Your task to perform on an android device: change your default location settings in chrome Image 0: 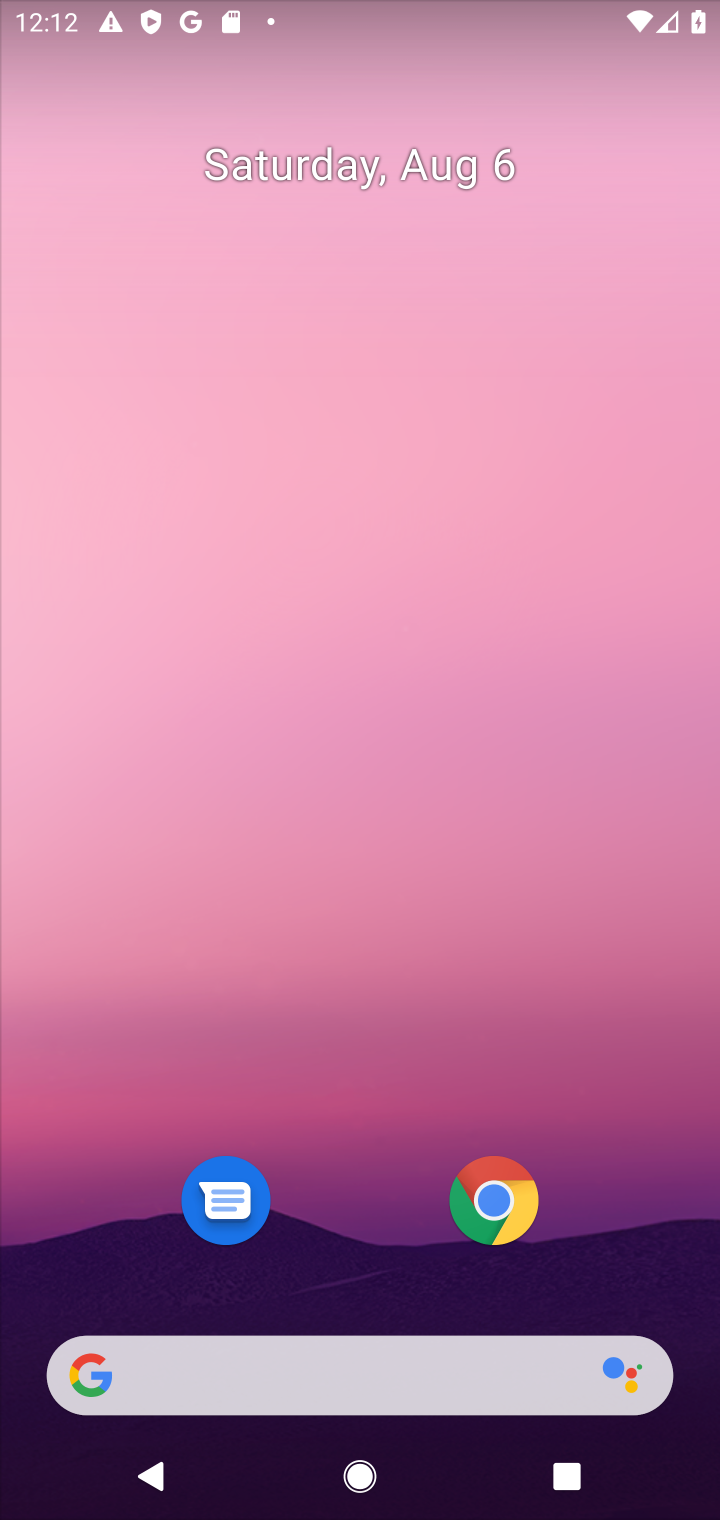
Step 0: drag from (604, 1492) to (433, 674)
Your task to perform on an android device: change your default location settings in chrome Image 1: 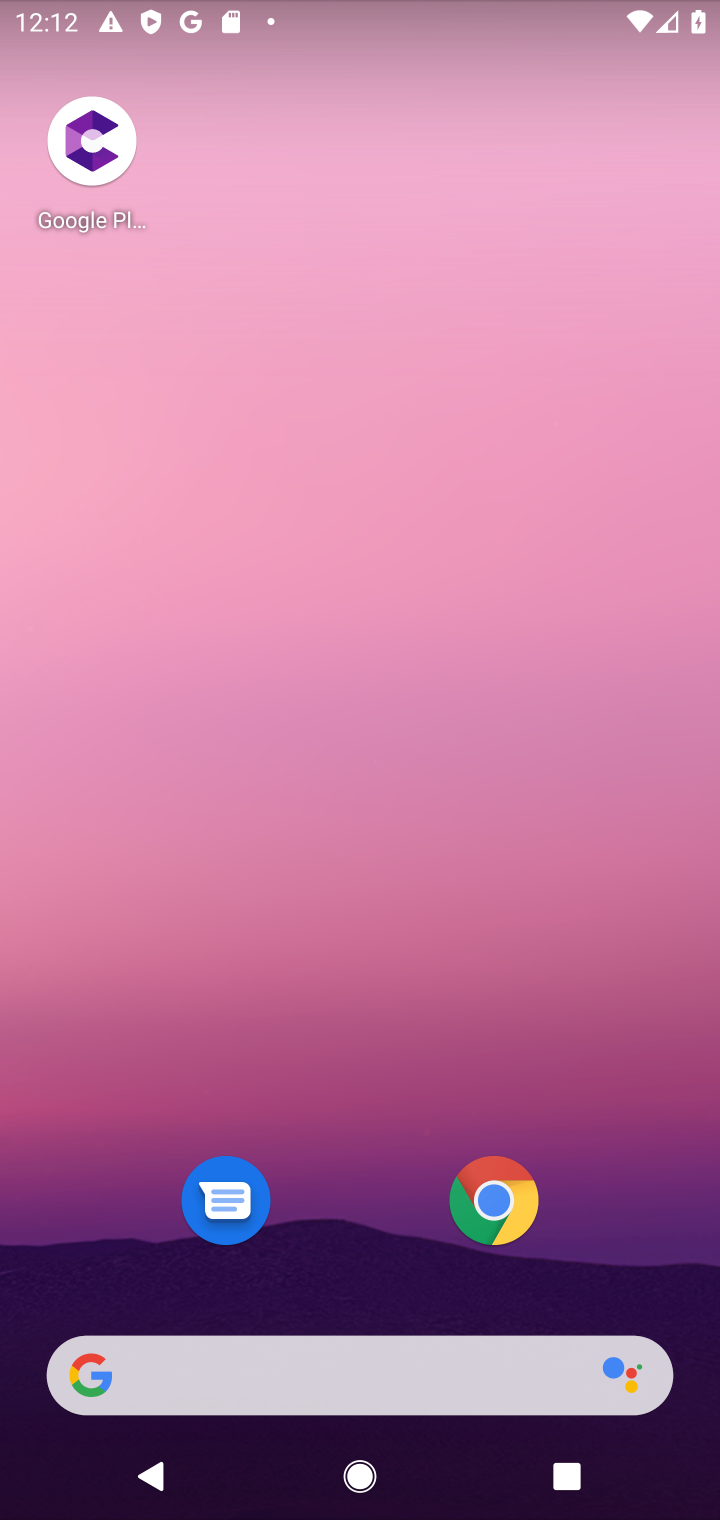
Step 1: drag from (191, 14) to (31, 70)
Your task to perform on an android device: change your default location settings in chrome Image 2: 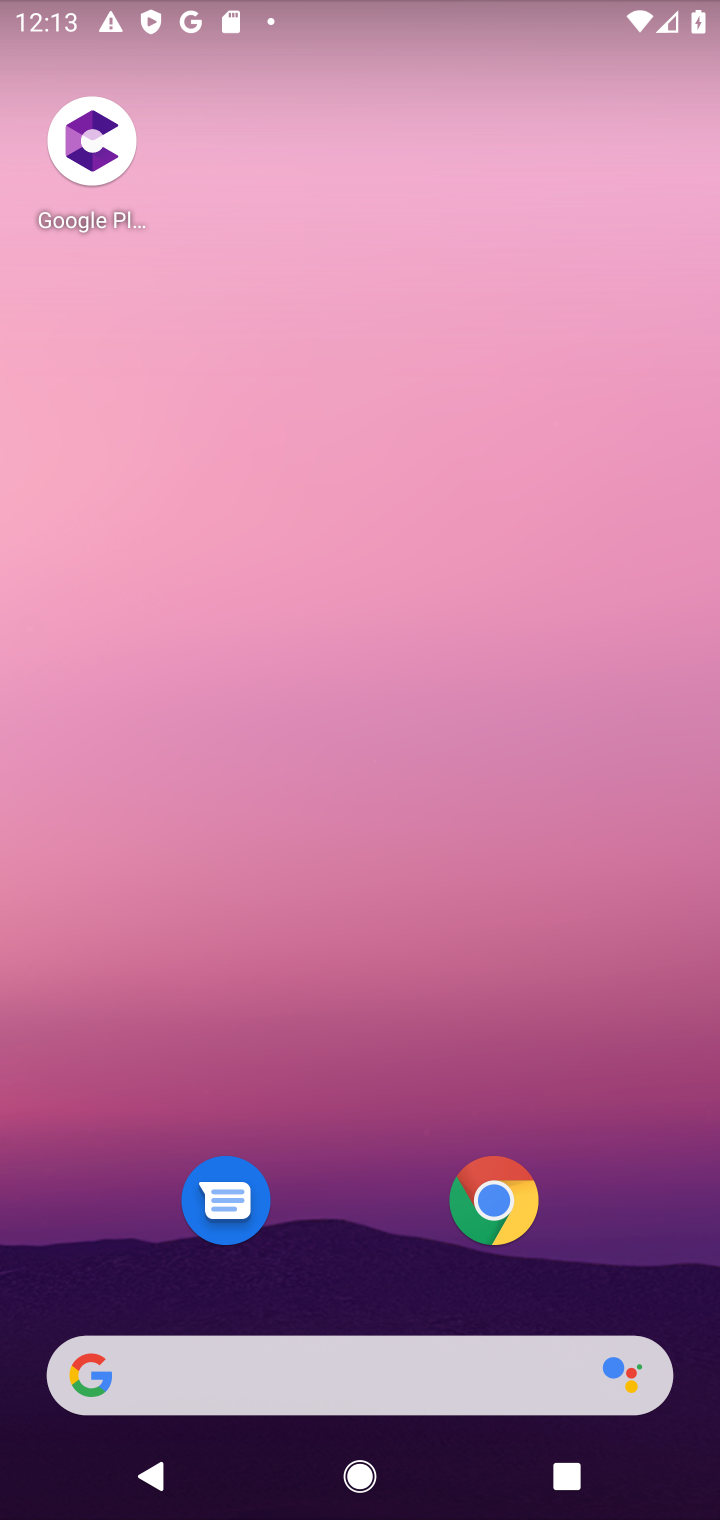
Step 2: drag from (381, 976) to (378, 201)
Your task to perform on an android device: change your default location settings in chrome Image 3: 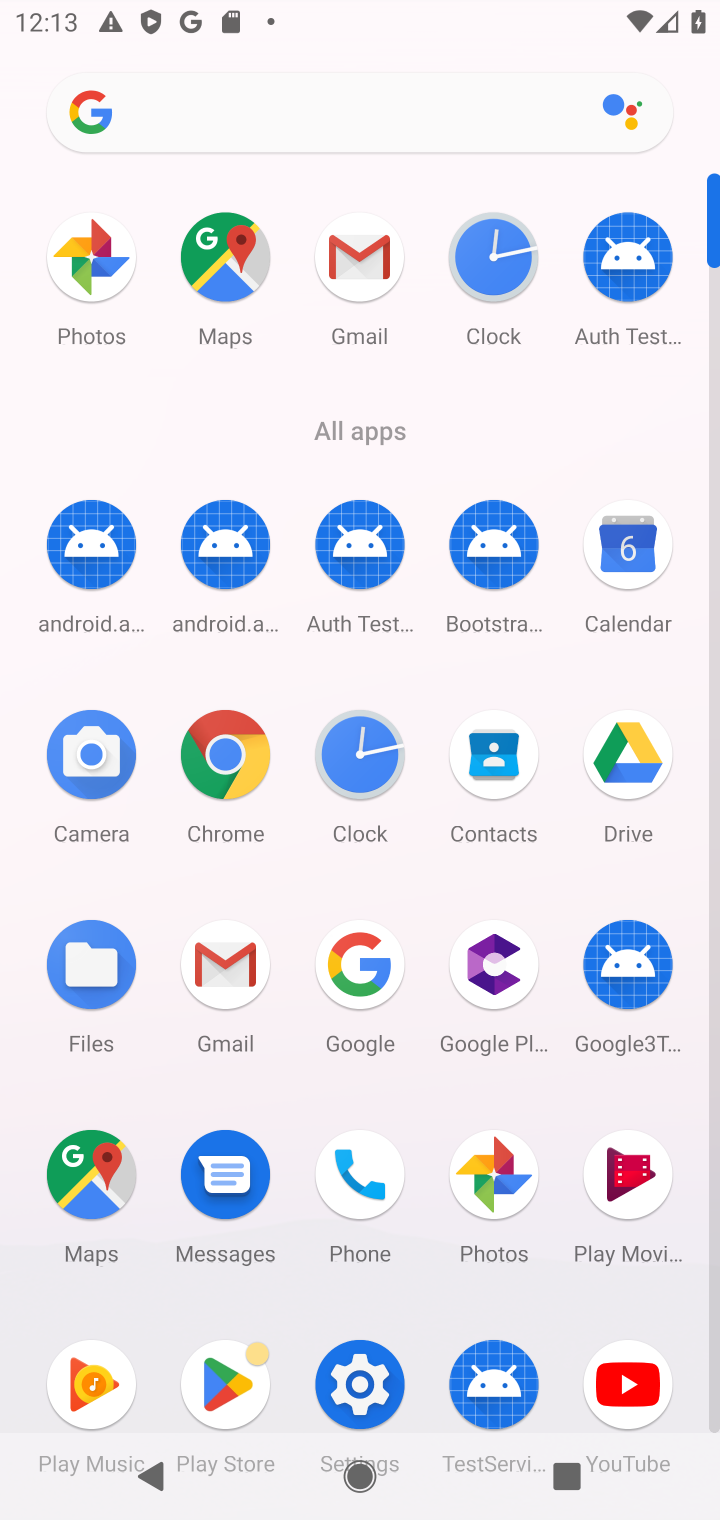
Step 3: click (217, 749)
Your task to perform on an android device: change your default location settings in chrome Image 4: 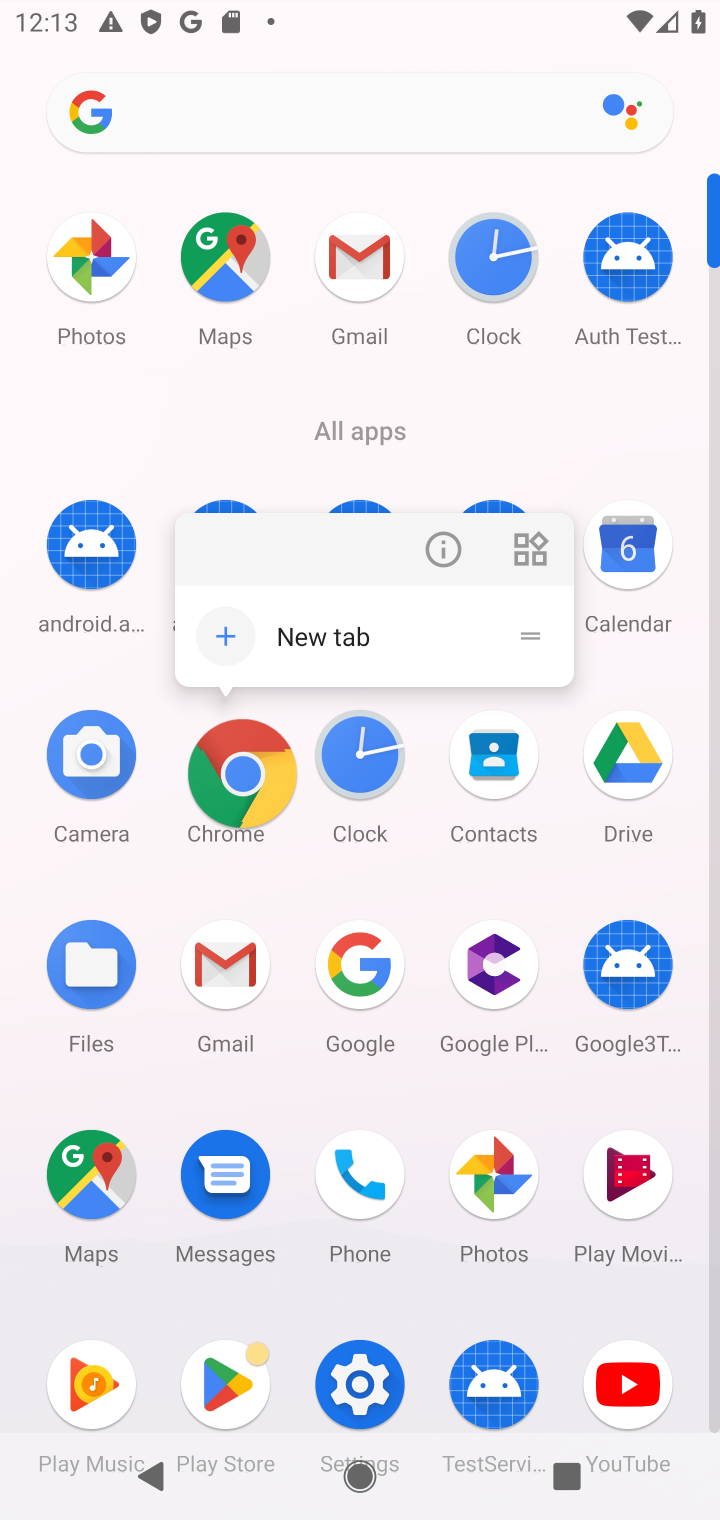
Step 4: click (232, 766)
Your task to perform on an android device: change your default location settings in chrome Image 5: 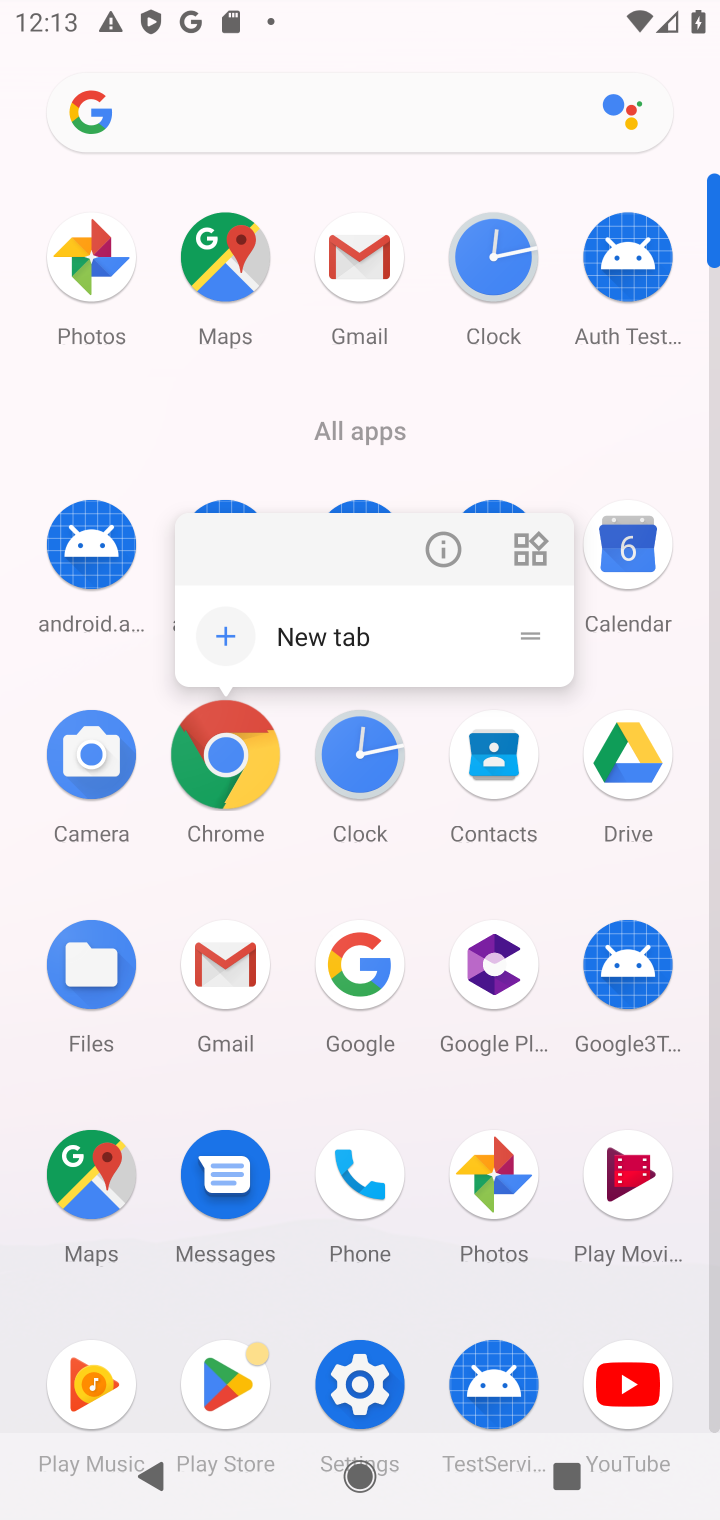
Step 5: click (227, 766)
Your task to perform on an android device: change your default location settings in chrome Image 6: 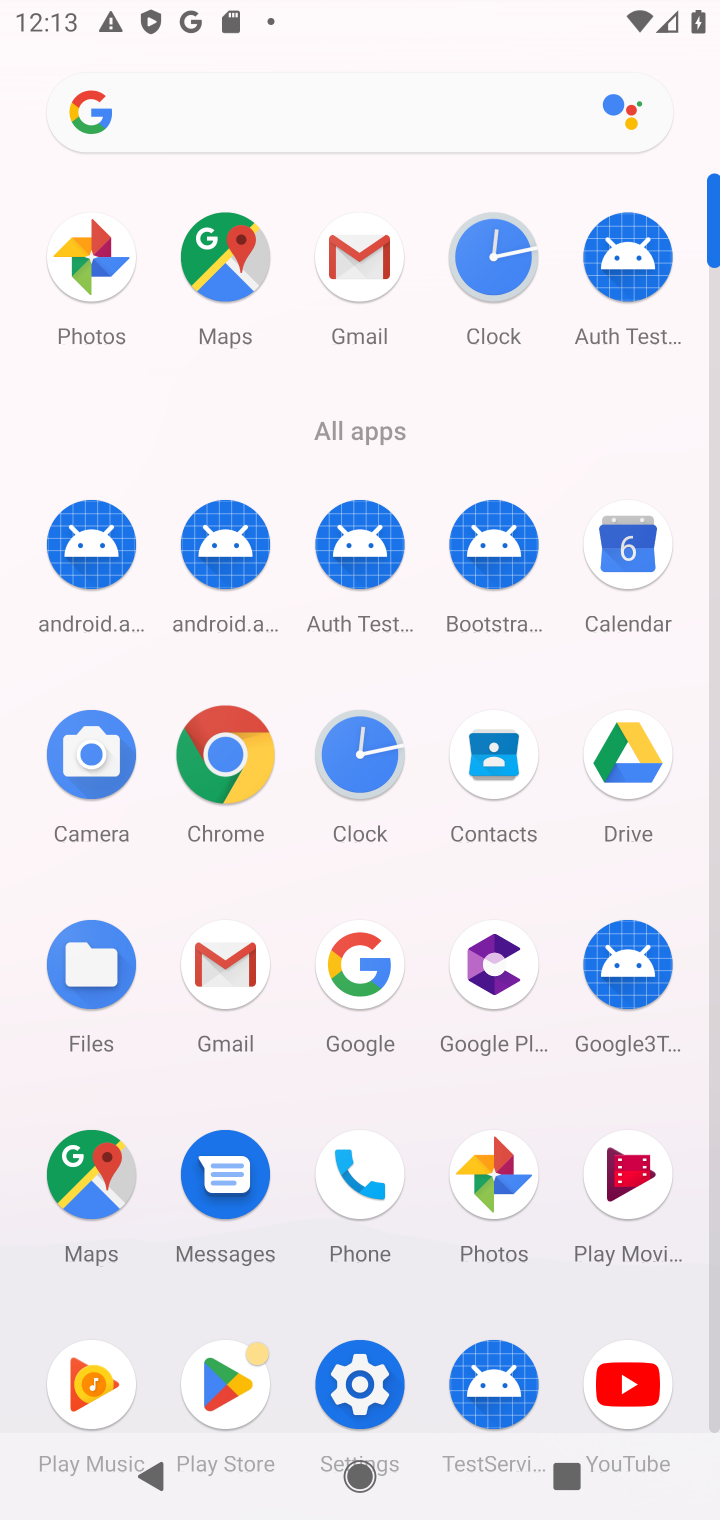
Step 6: click (227, 766)
Your task to perform on an android device: change your default location settings in chrome Image 7: 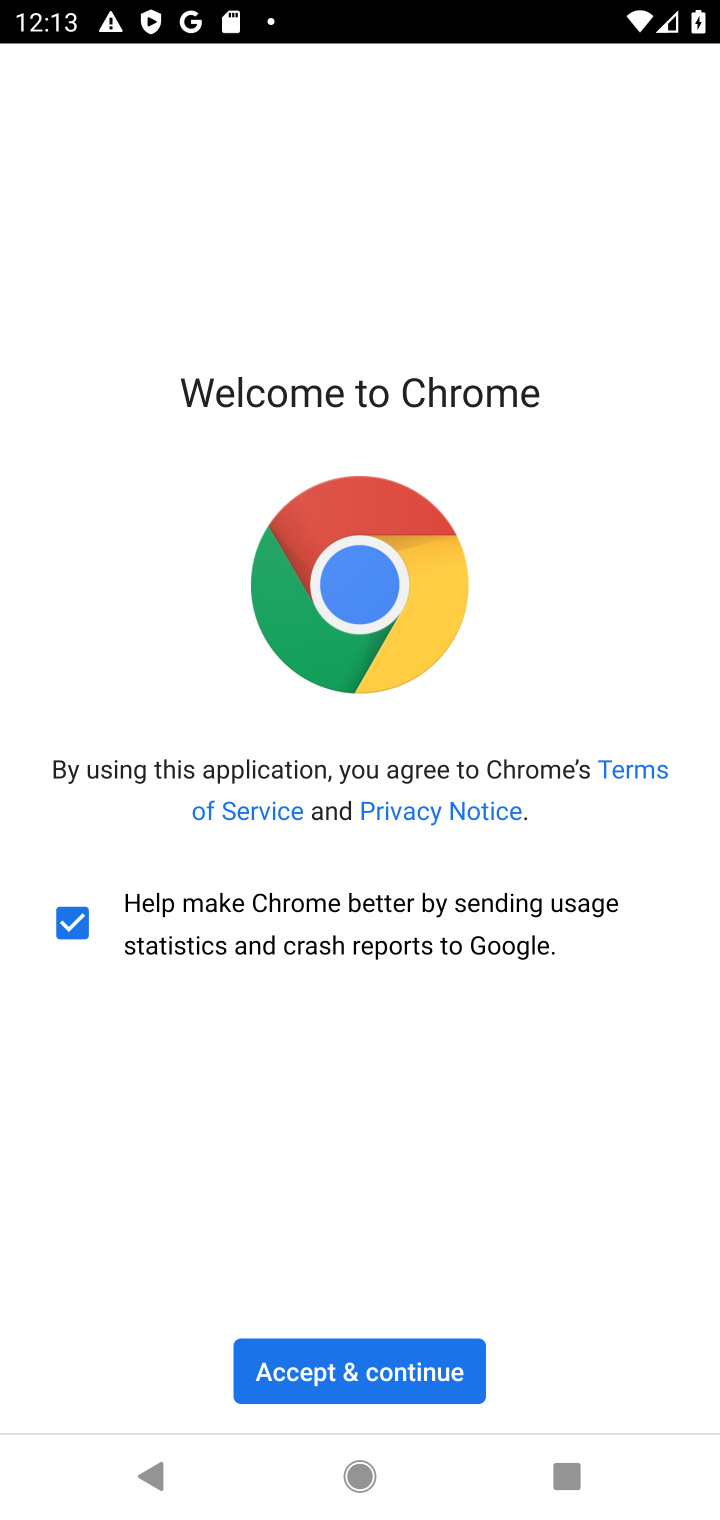
Step 7: press back button
Your task to perform on an android device: change your default location settings in chrome Image 8: 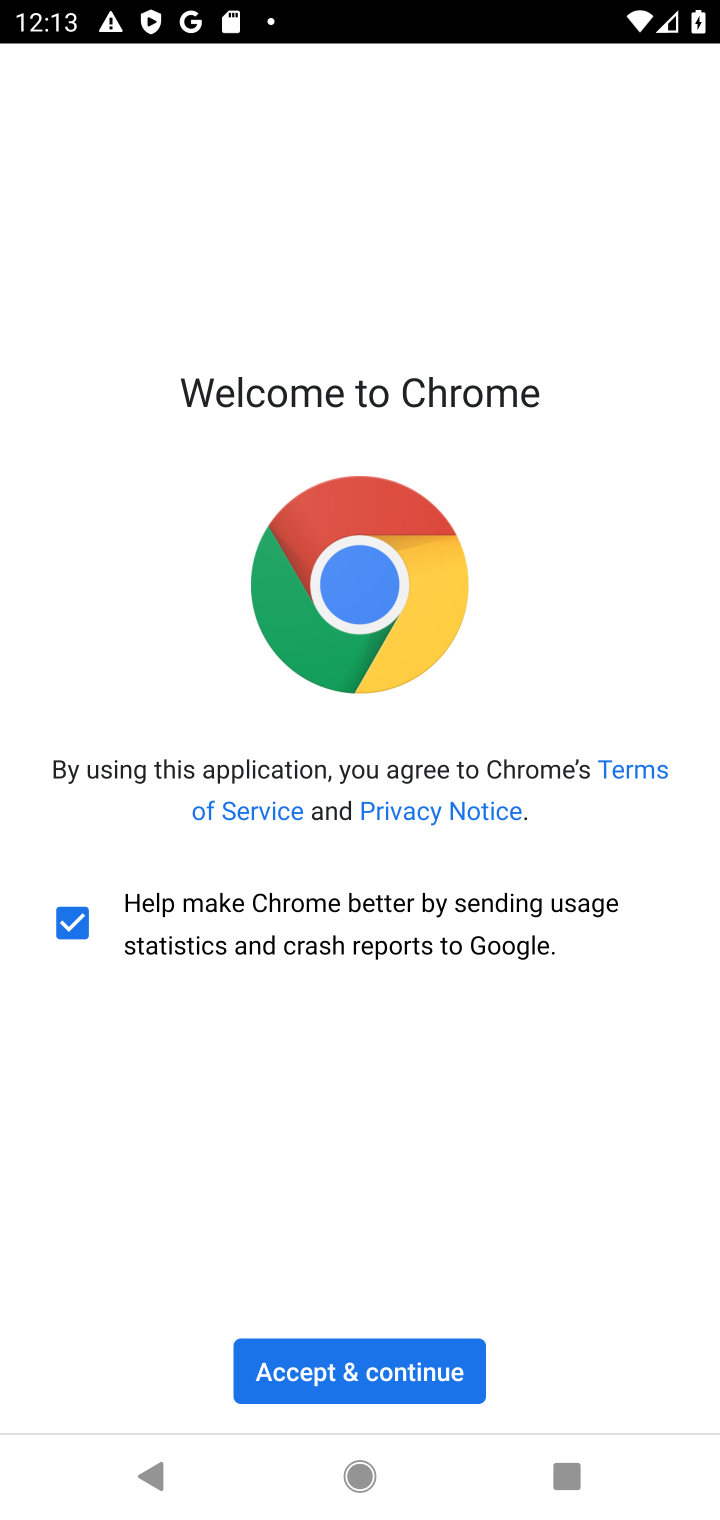
Step 8: press back button
Your task to perform on an android device: change your default location settings in chrome Image 9: 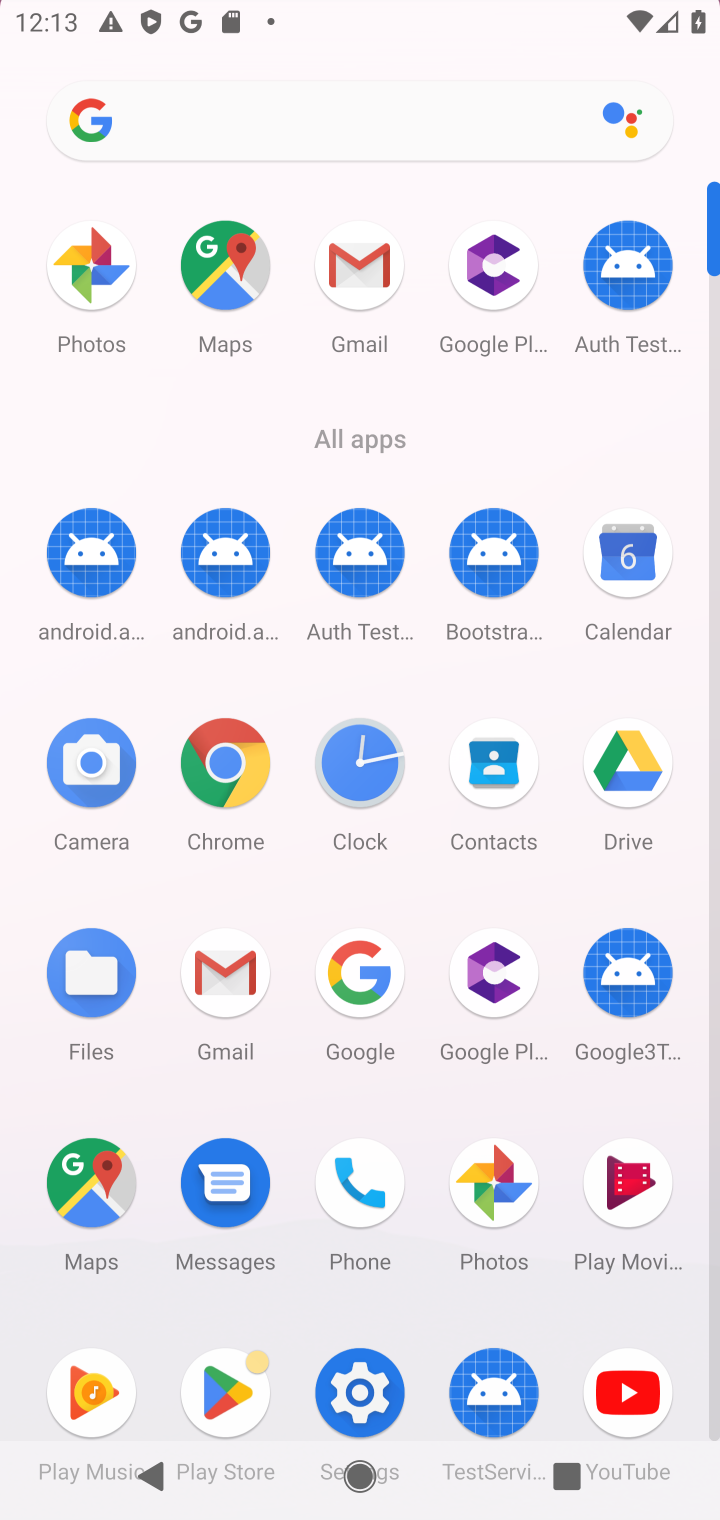
Step 9: press back button
Your task to perform on an android device: change your default location settings in chrome Image 10: 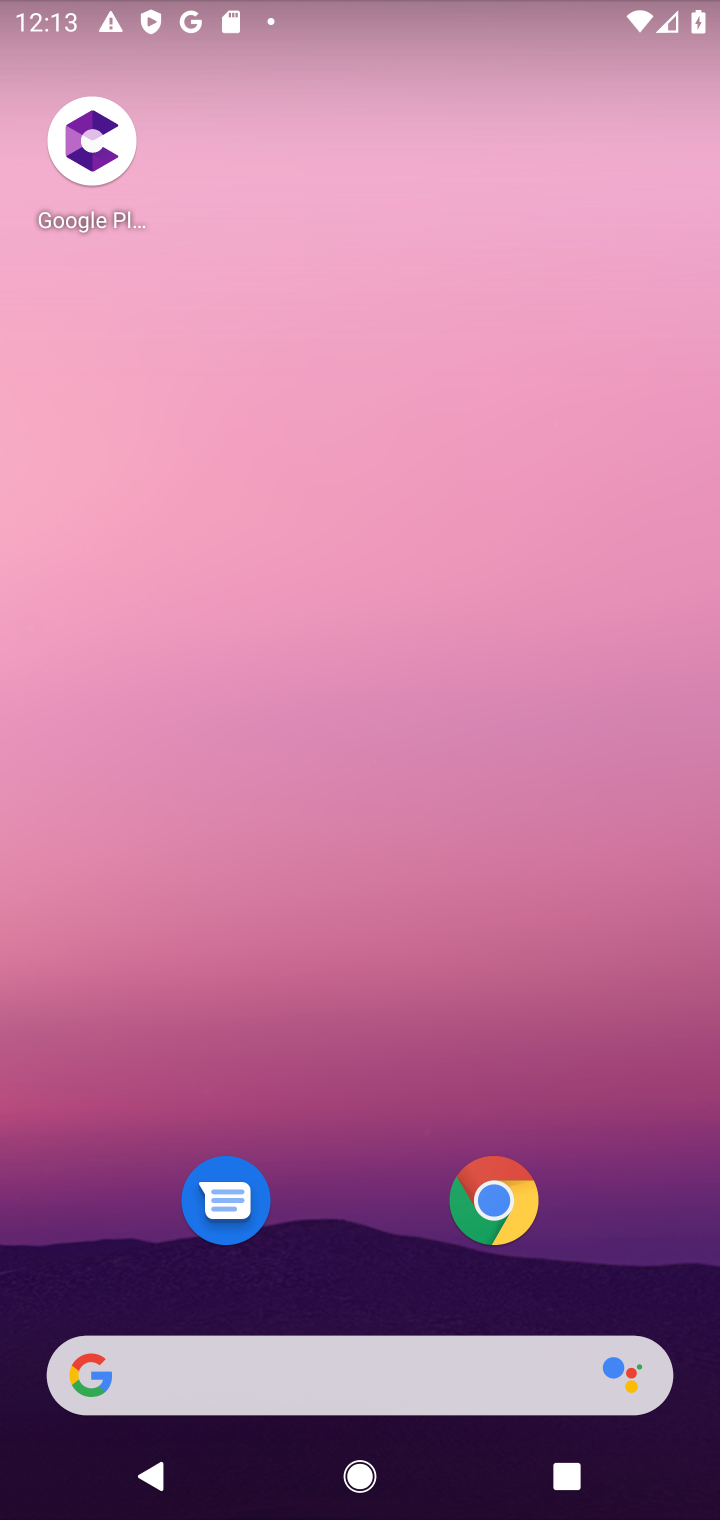
Step 10: click (169, 187)
Your task to perform on an android device: change your default location settings in chrome Image 11: 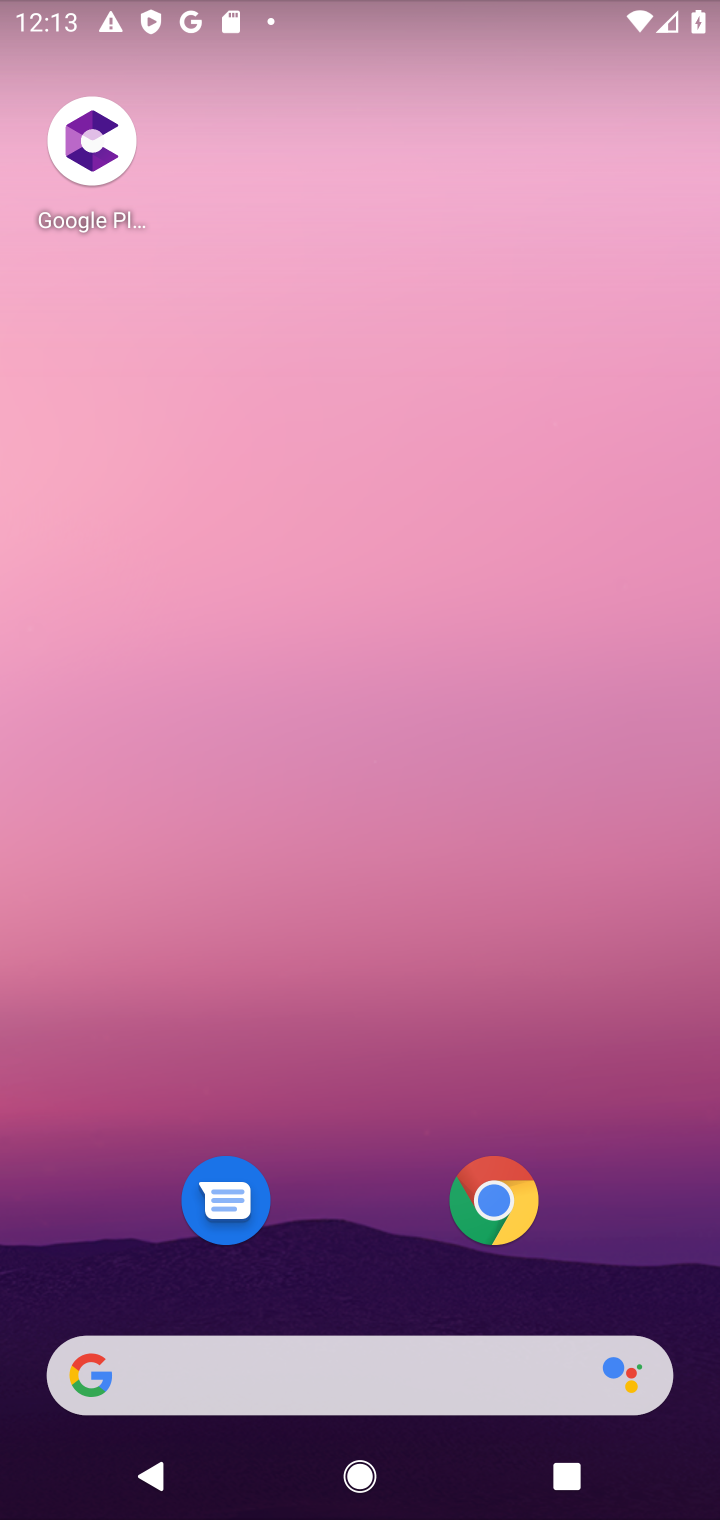
Step 11: drag from (168, 212) to (177, 33)
Your task to perform on an android device: change your default location settings in chrome Image 12: 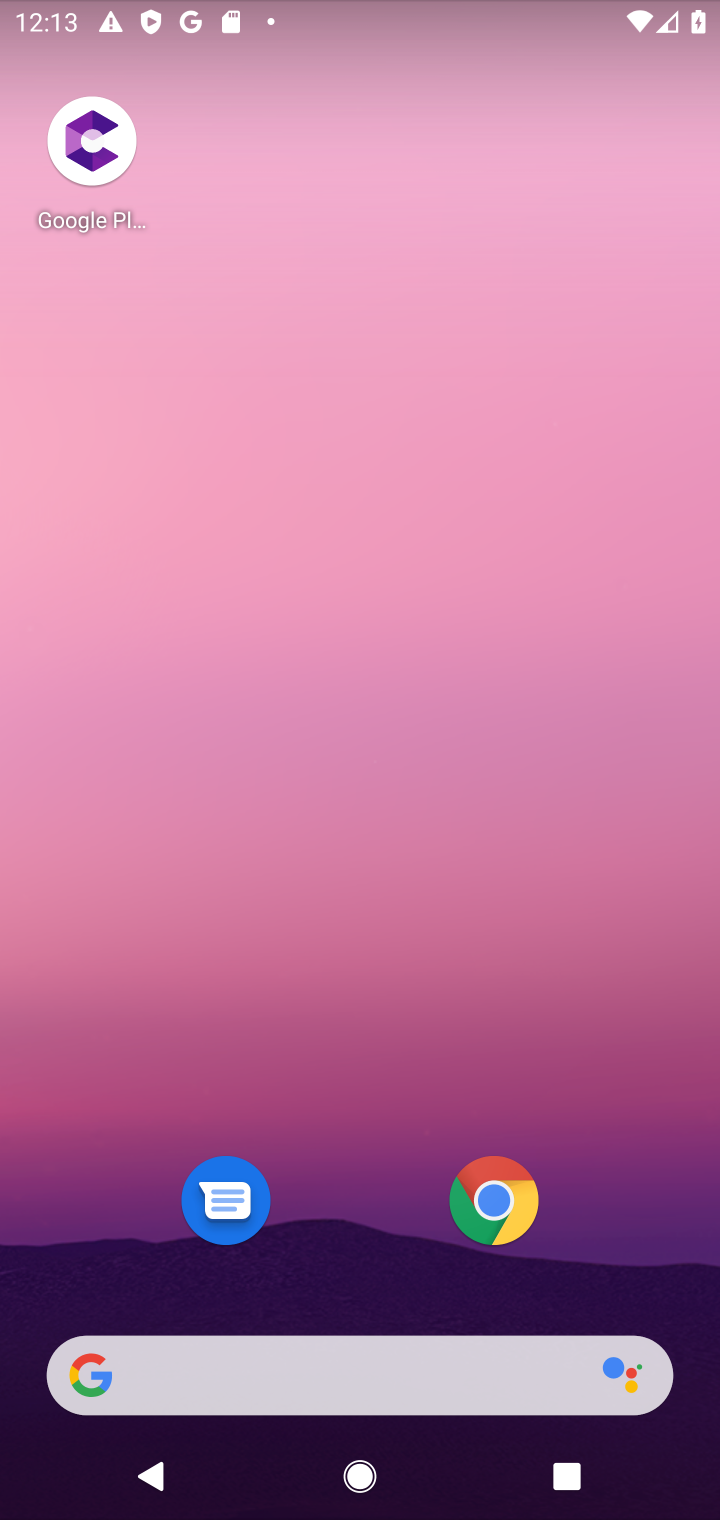
Step 12: drag from (228, 98) to (348, 55)
Your task to perform on an android device: change your default location settings in chrome Image 13: 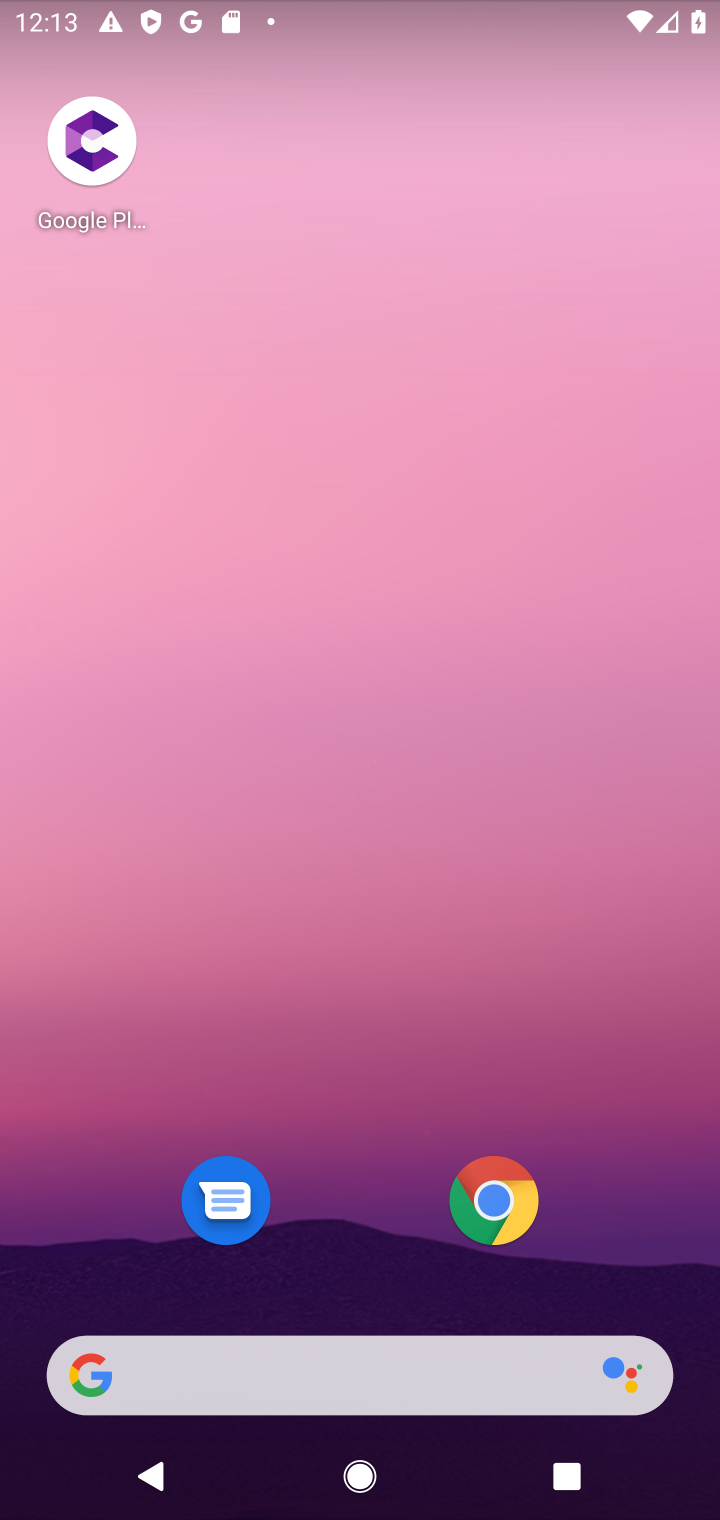
Step 13: drag from (451, 1307) to (532, 581)
Your task to perform on an android device: change your default location settings in chrome Image 14: 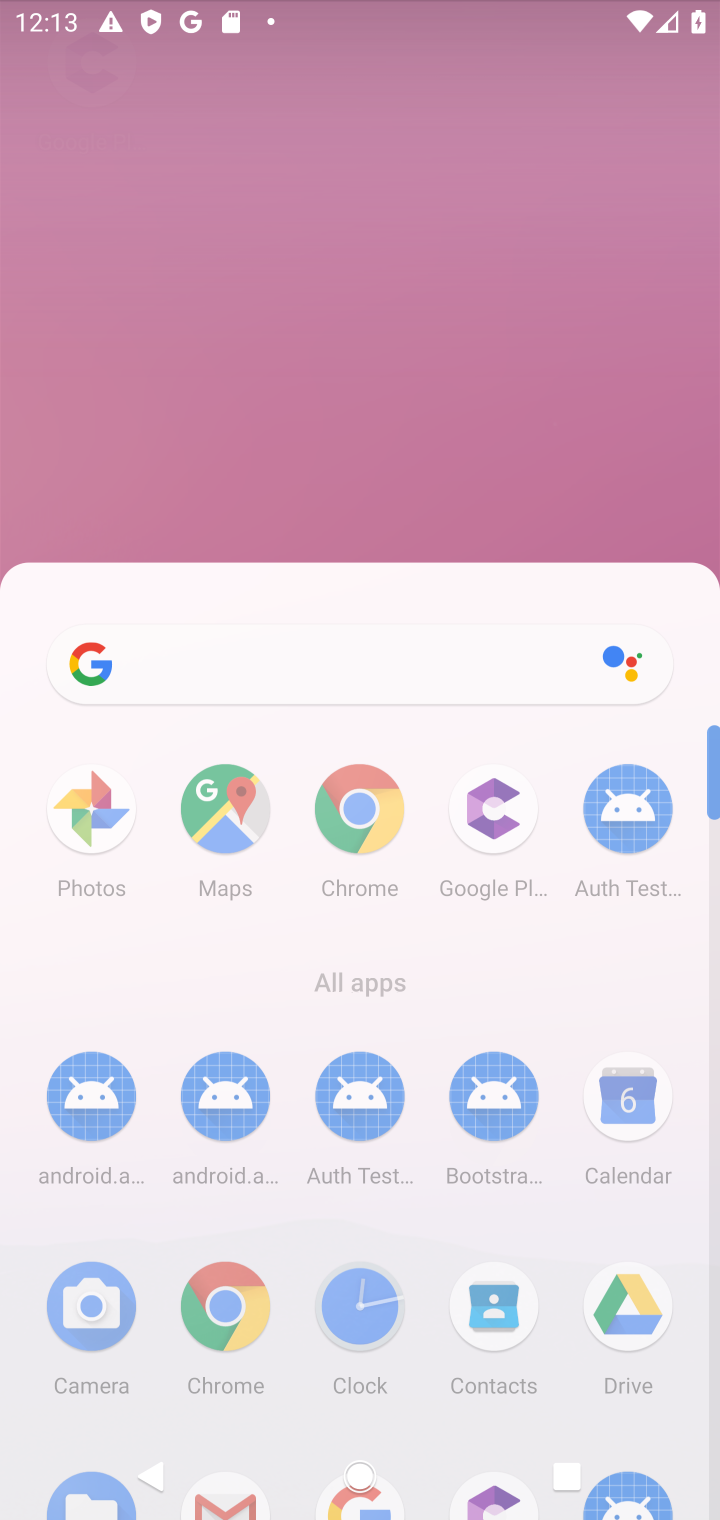
Step 14: drag from (536, 1242) to (447, 572)
Your task to perform on an android device: change your default location settings in chrome Image 15: 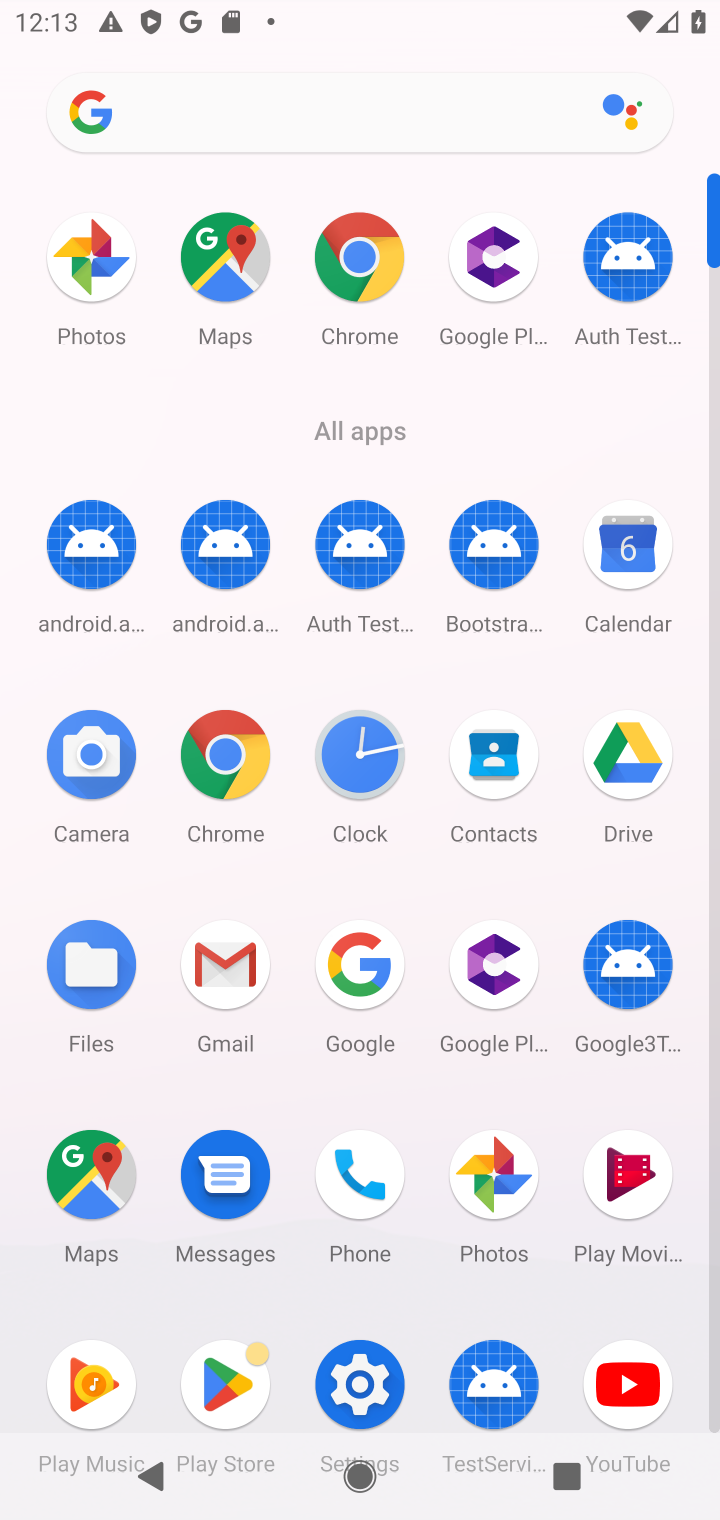
Step 15: click (234, 761)
Your task to perform on an android device: change your default location settings in chrome Image 16: 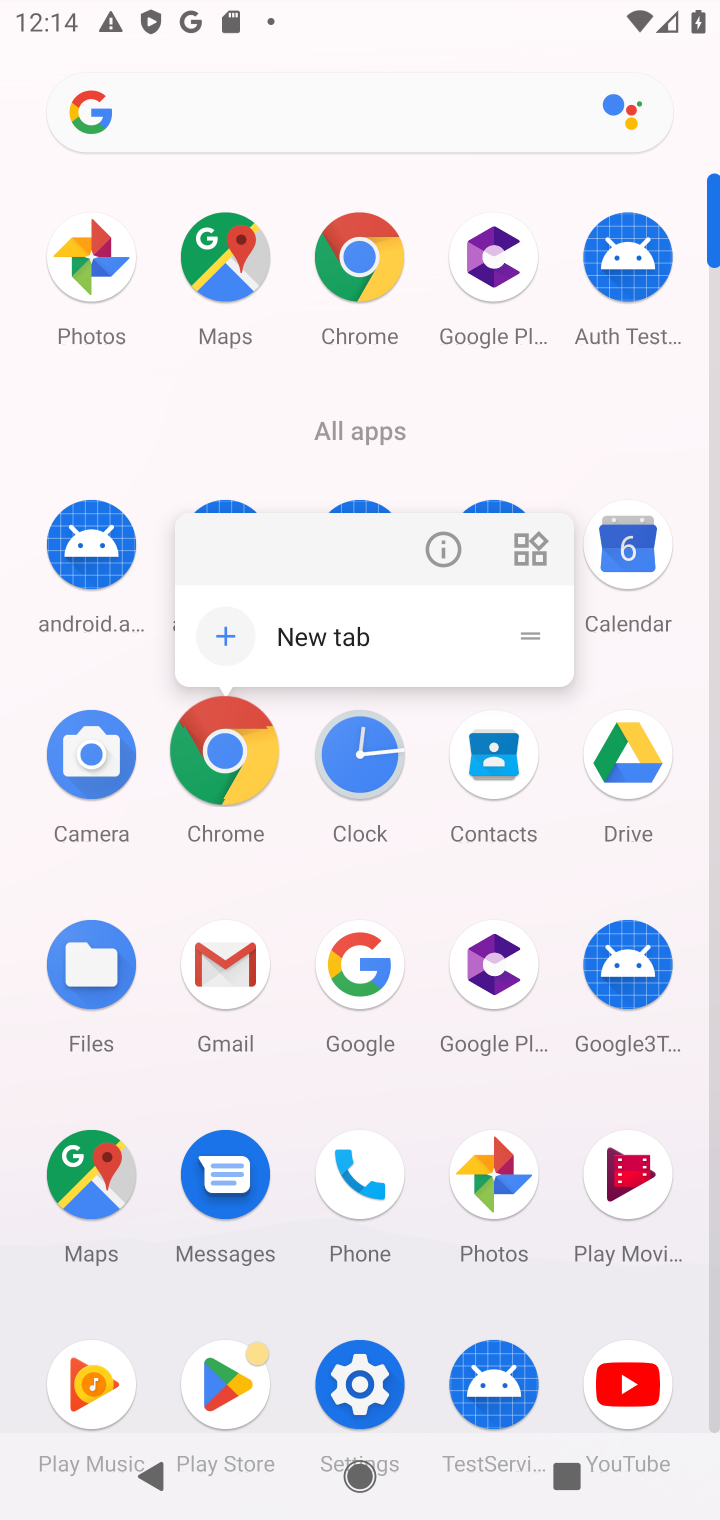
Step 16: click (241, 759)
Your task to perform on an android device: change your default location settings in chrome Image 17: 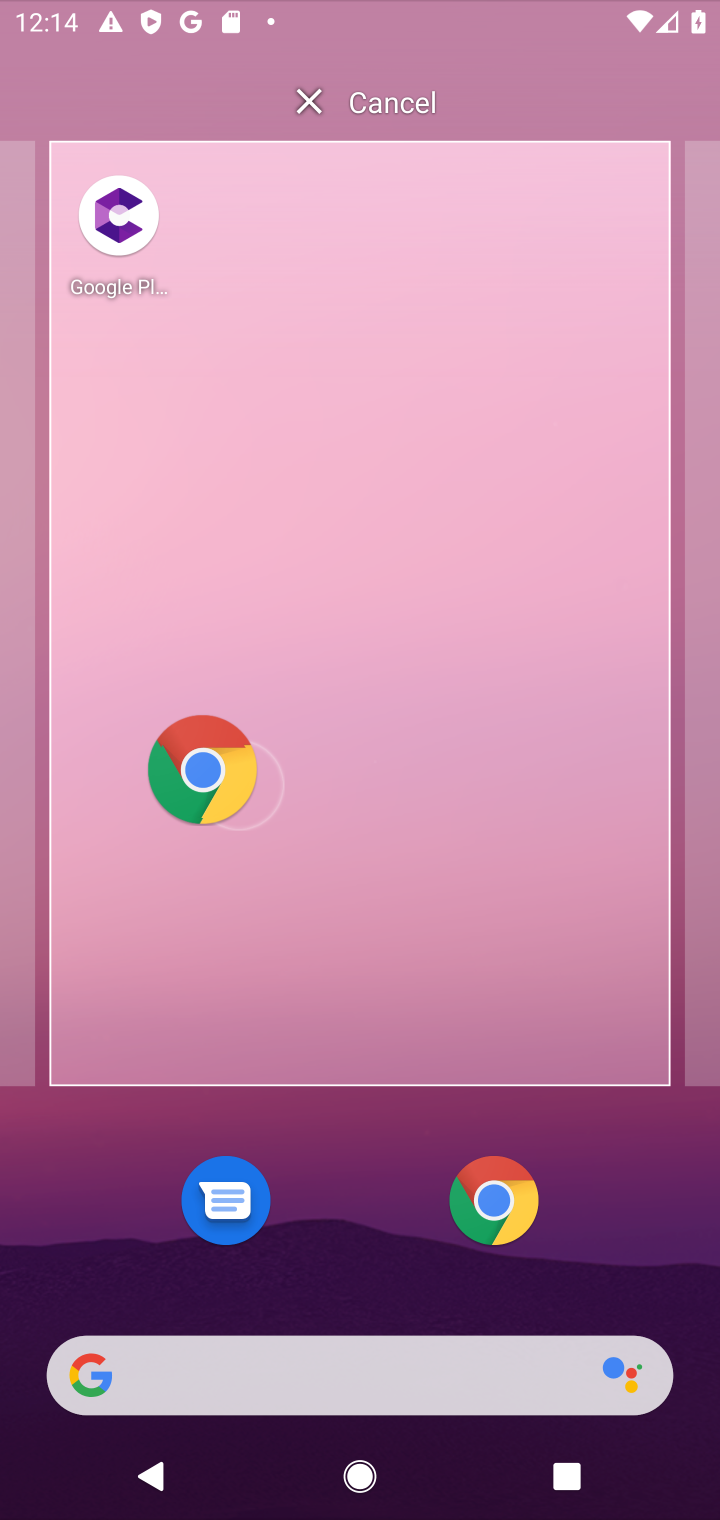
Step 17: click (218, 774)
Your task to perform on an android device: change your default location settings in chrome Image 18: 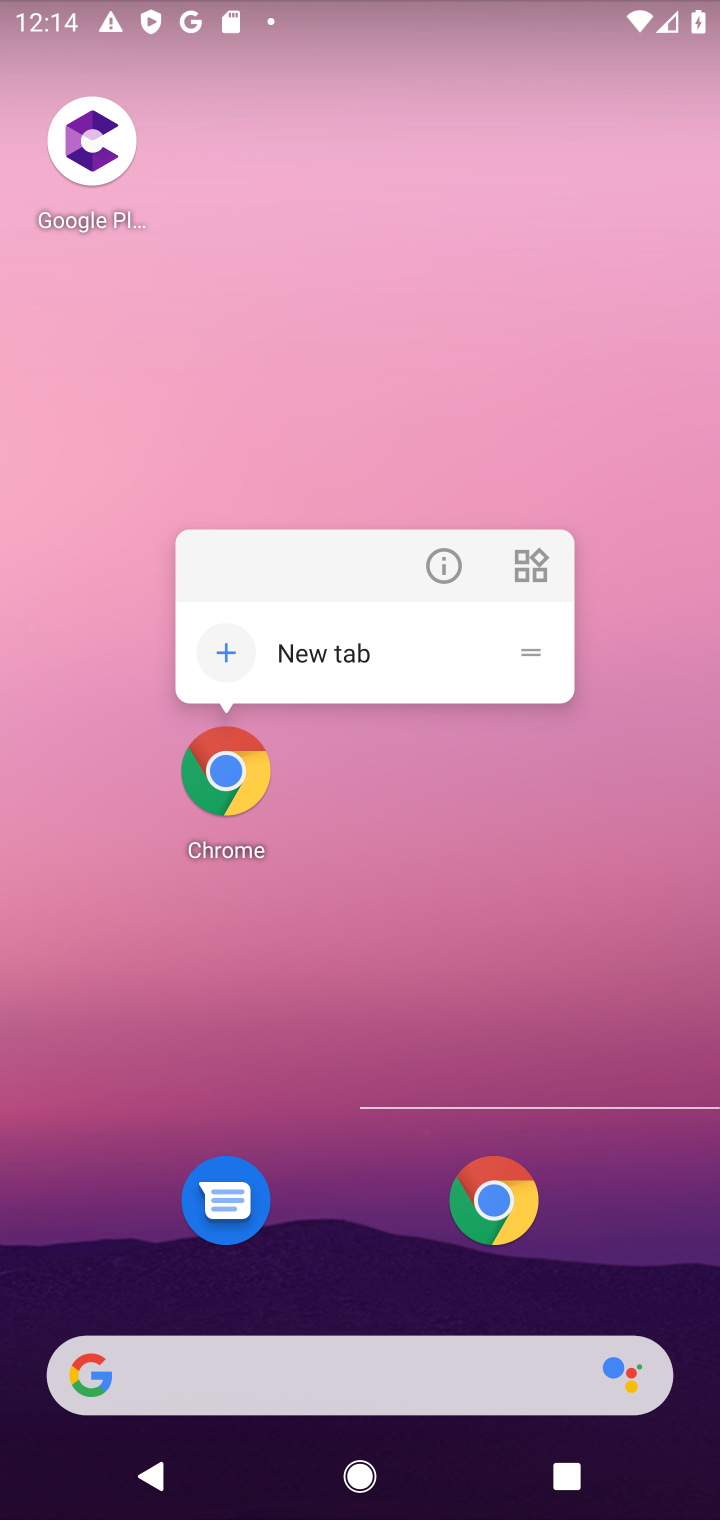
Step 18: click (218, 774)
Your task to perform on an android device: change your default location settings in chrome Image 19: 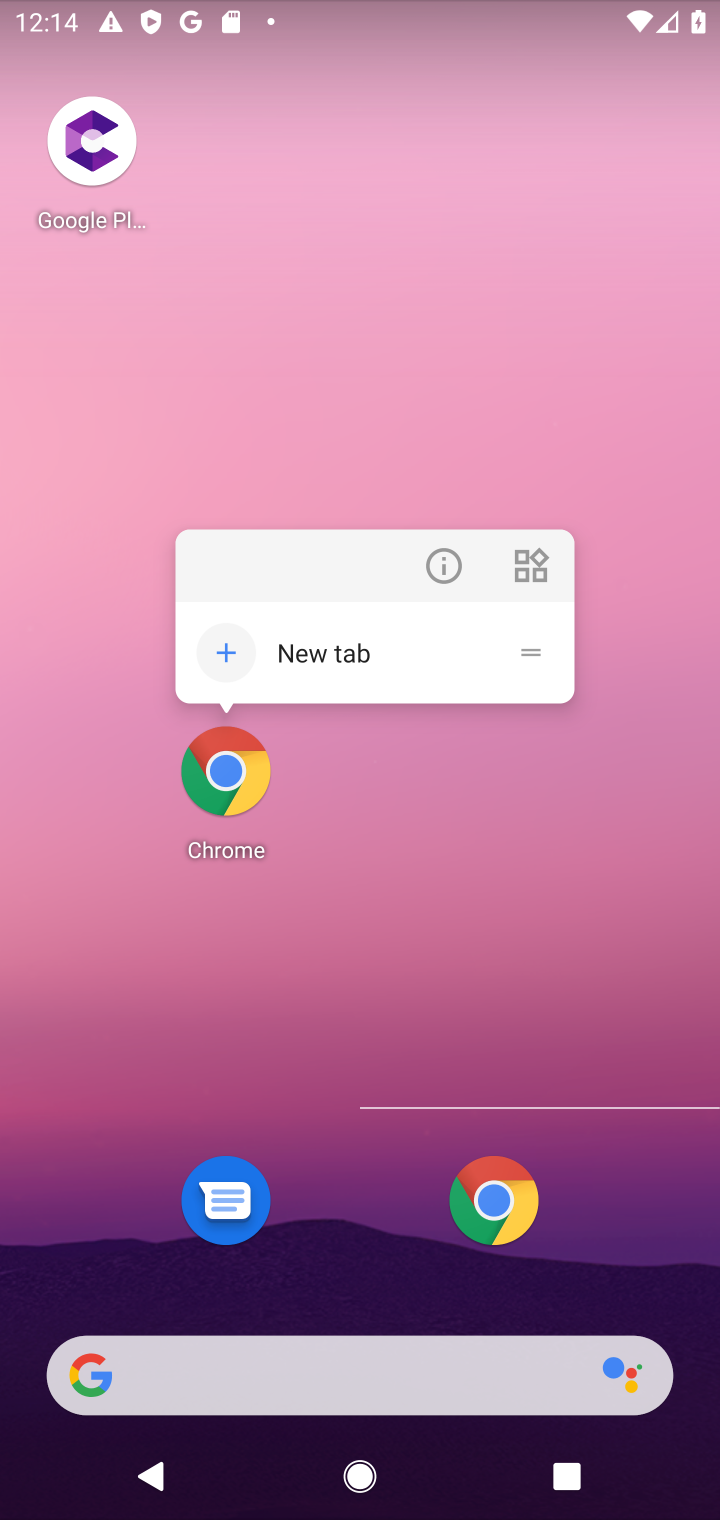
Step 19: drag from (317, 849) to (360, 629)
Your task to perform on an android device: change your default location settings in chrome Image 20: 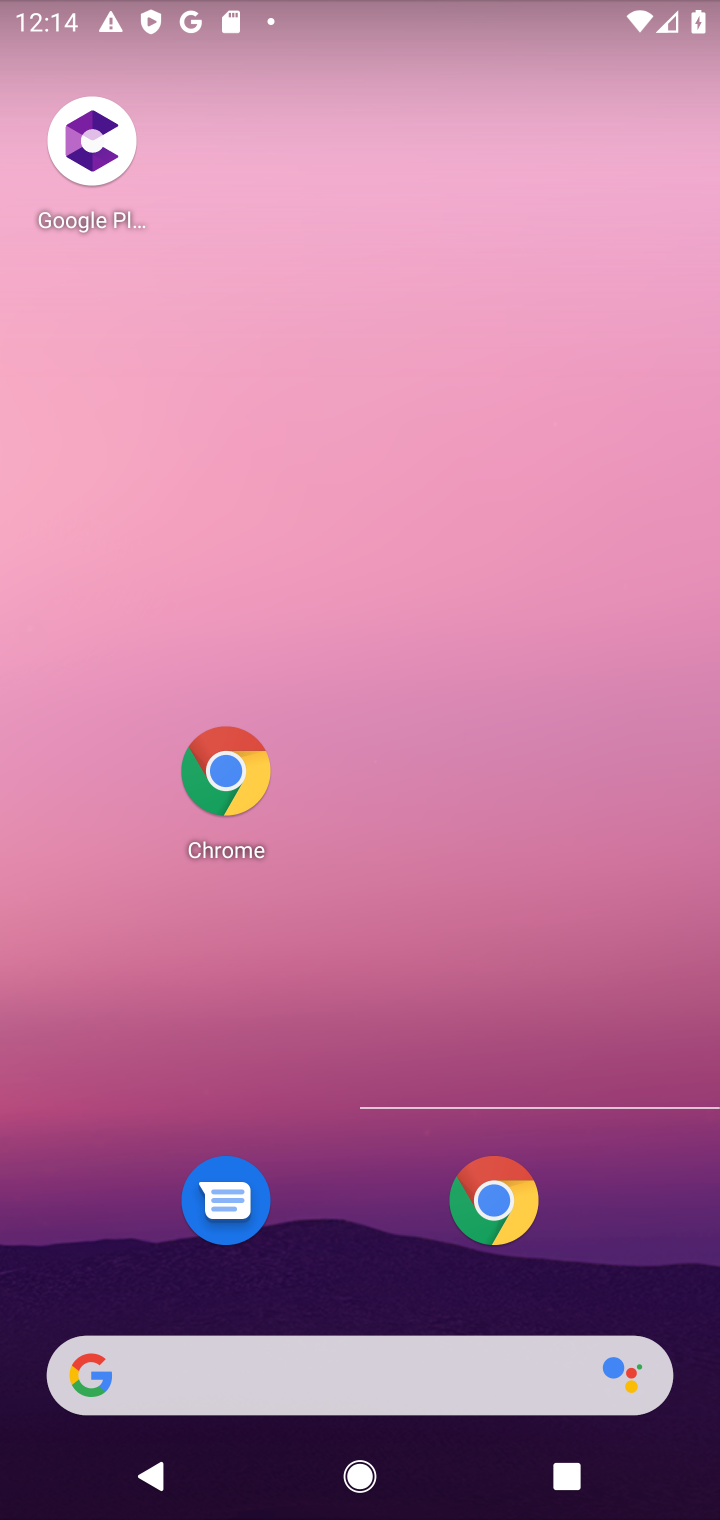
Step 20: click (421, 474)
Your task to perform on an android device: change your default location settings in chrome Image 21: 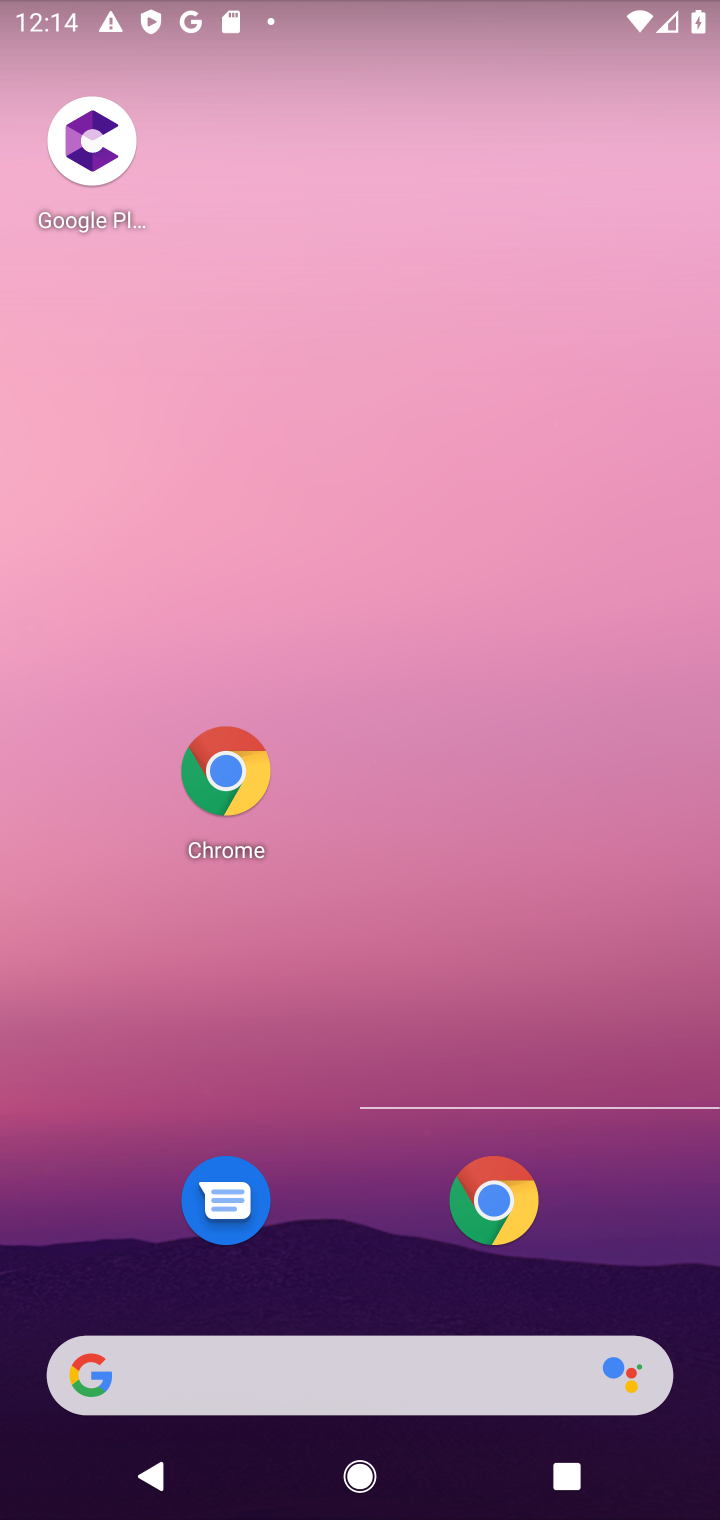
Step 21: click (233, 764)
Your task to perform on an android device: change your default location settings in chrome Image 22: 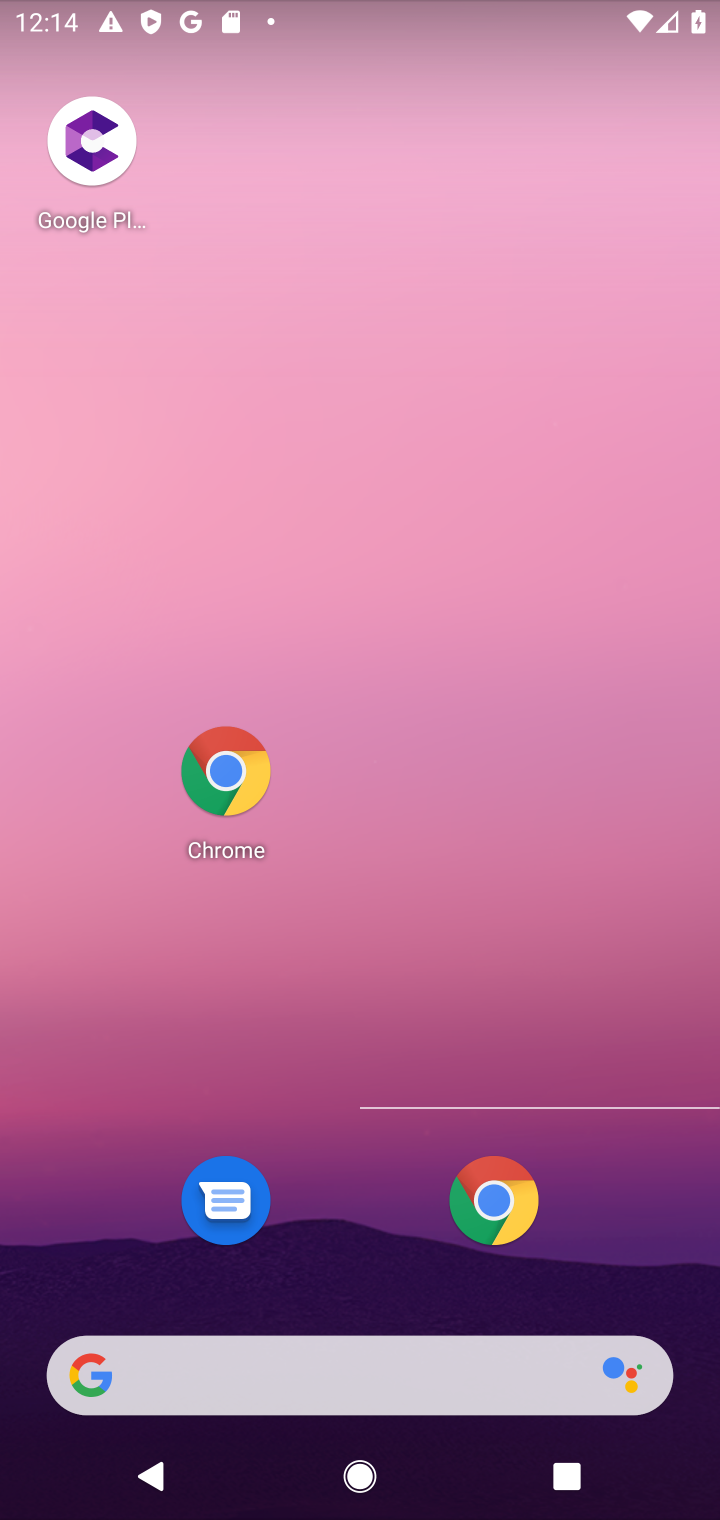
Step 22: task complete